Your task to perform on an android device: open chrome and create a bookmark for the current page Image 0: 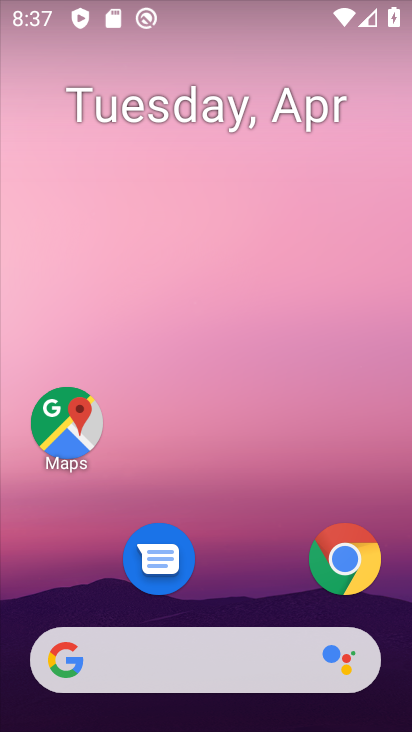
Step 0: drag from (258, 690) to (249, 48)
Your task to perform on an android device: open chrome and create a bookmark for the current page Image 1: 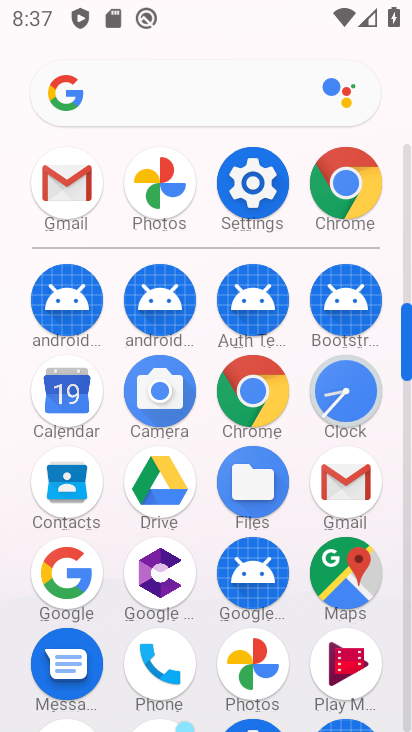
Step 1: click (260, 393)
Your task to perform on an android device: open chrome and create a bookmark for the current page Image 2: 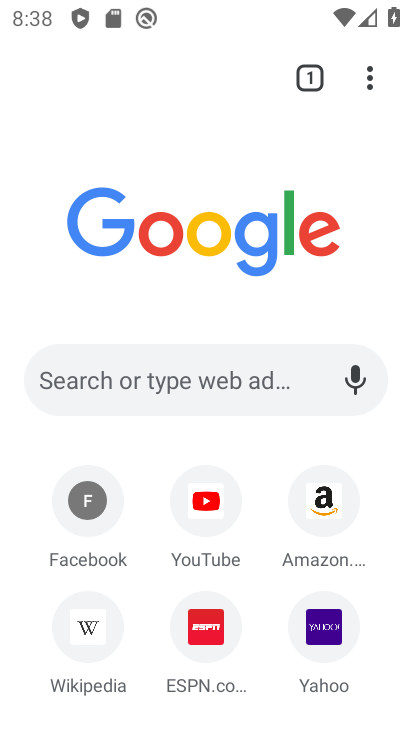
Step 2: click (370, 85)
Your task to perform on an android device: open chrome and create a bookmark for the current page Image 3: 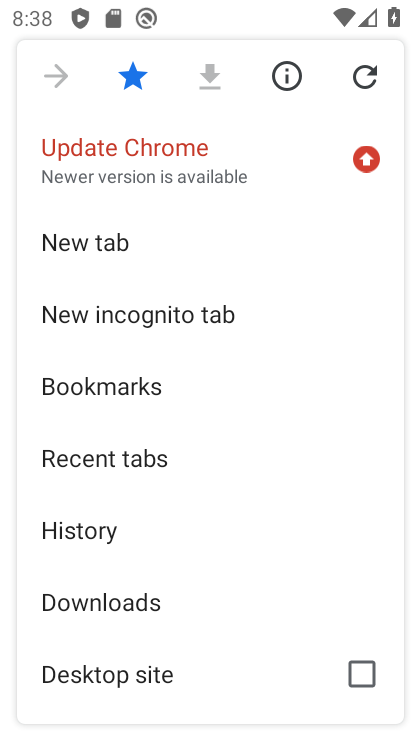
Step 3: click (121, 385)
Your task to perform on an android device: open chrome and create a bookmark for the current page Image 4: 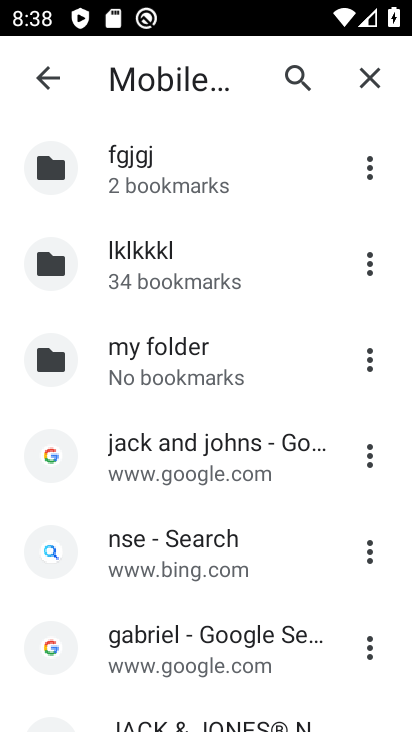
Step 4: task complete